Your task to perform on an android device: Clear the cart on bestbuy.com. Add "panasonic triple a" to the cart on bestbuy.com, then select checkout. Image 0: 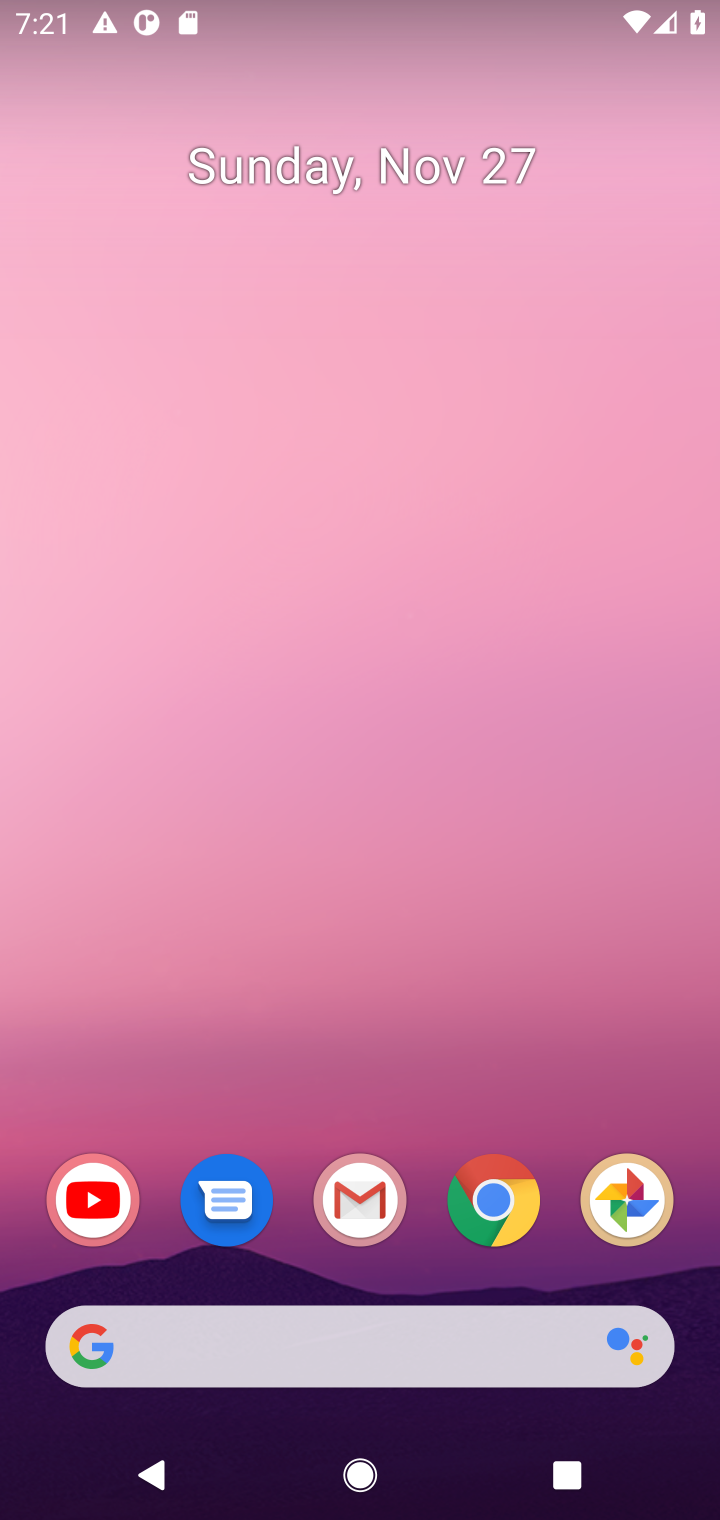
Step 0: click (499, 1206)
Your task to perform on an android device: Clear the cart on bestbuy.com. Add "panasonic triple a" to the cart on bestbuy.com, then select checkout. Image 1: 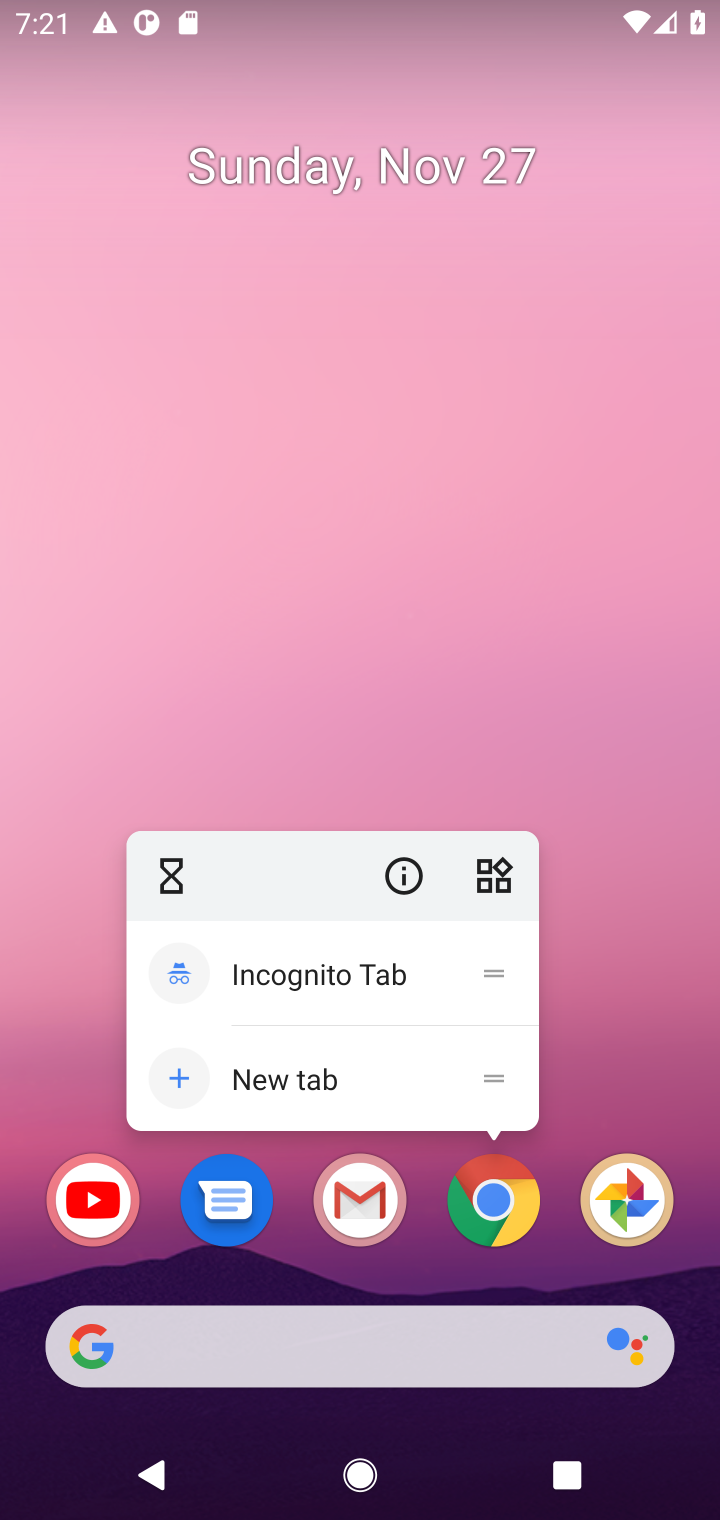
Step 1: click (499, 1206)
Your task to perform on an android device: Clear the cart on bestbuy.com. Add "panasonic triple a" to the cart on bestbuy.com, then select checkout. Image 2: 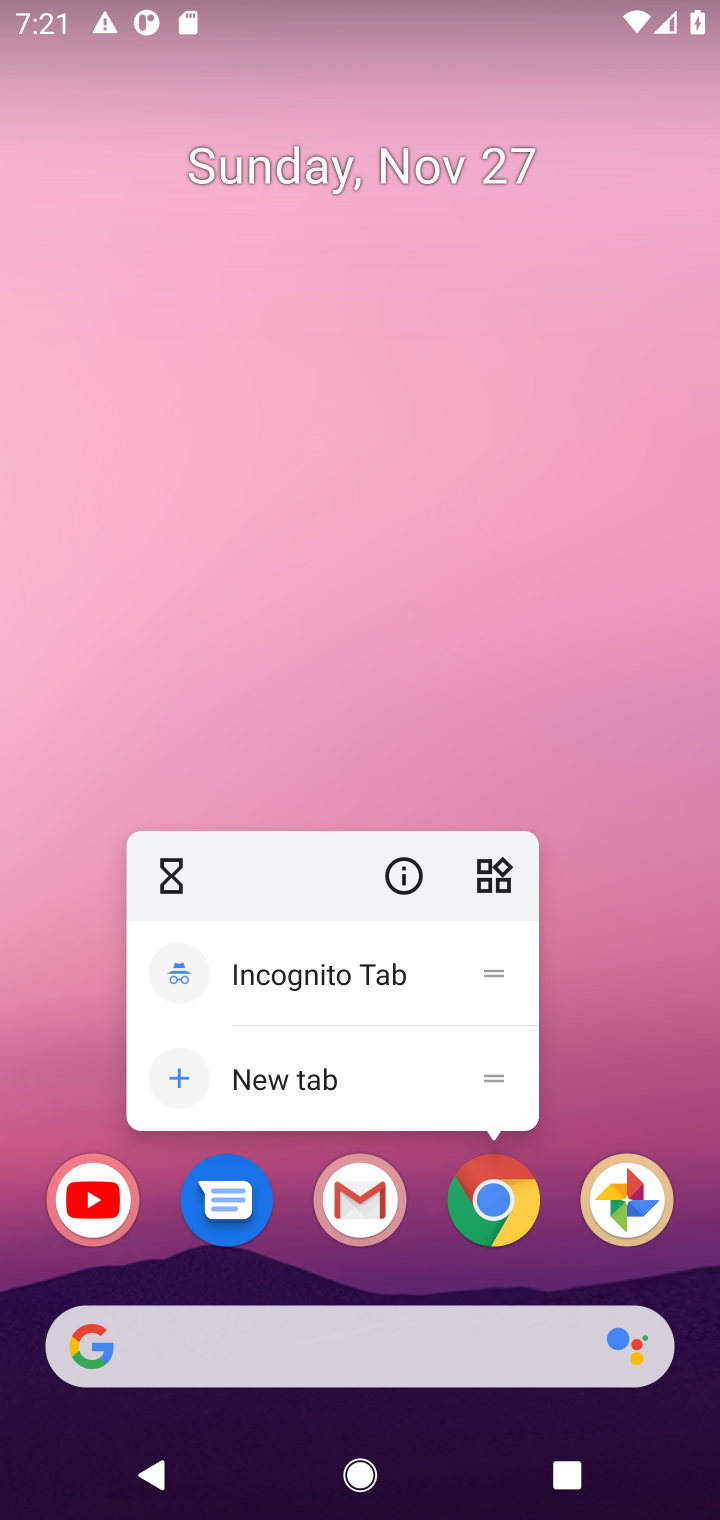
Step 2: click (499, 1206)
Your task to perform on an android device: Clear the cart on bestbuy.com. Add "panasonic triple a" to the cart on bestbuy.com, then select checkout. Image 3: 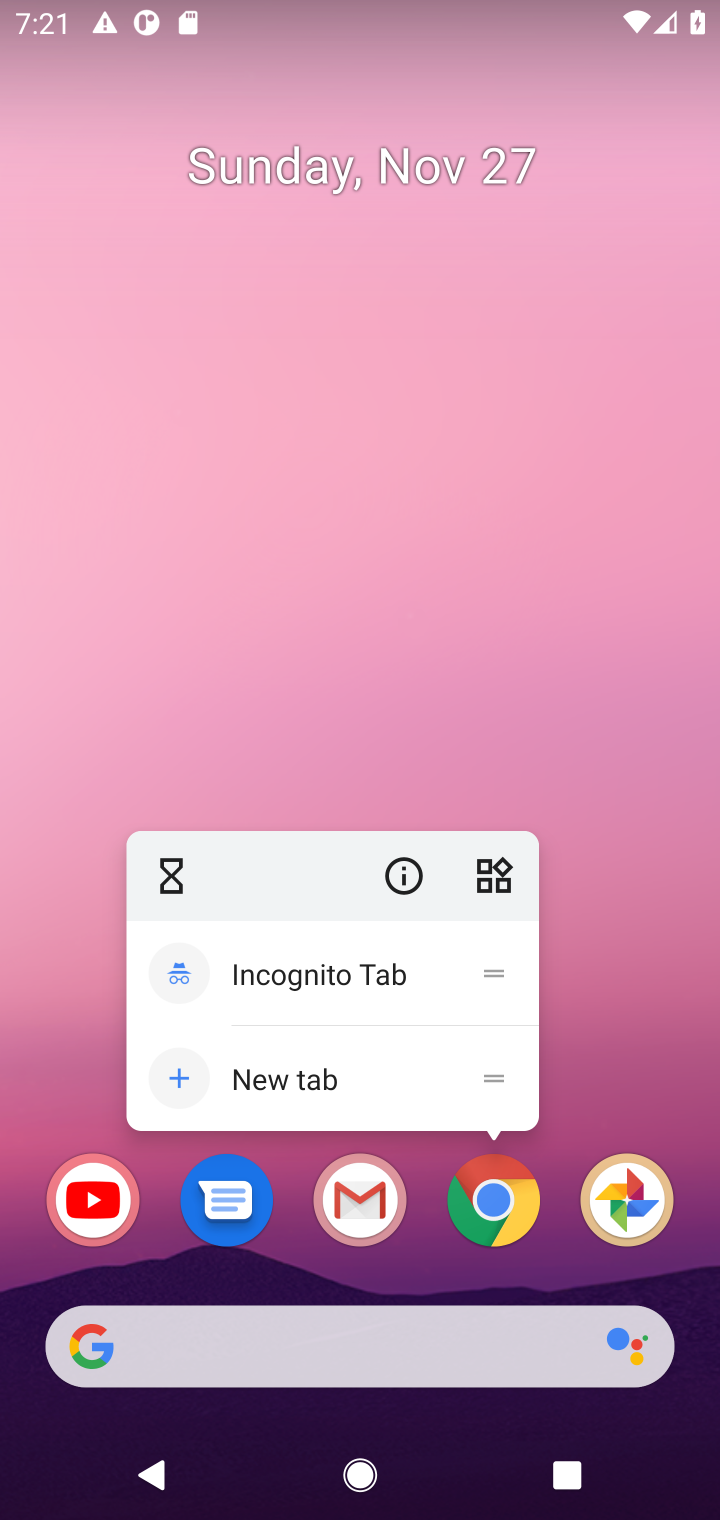
Step 3: click (568, 1060)
Your task to perform on an android device: Clear the cart on bestbuy.com. Add "panasonic triple a" to the cart on bestbuy.com, then select checkout. Image 4: 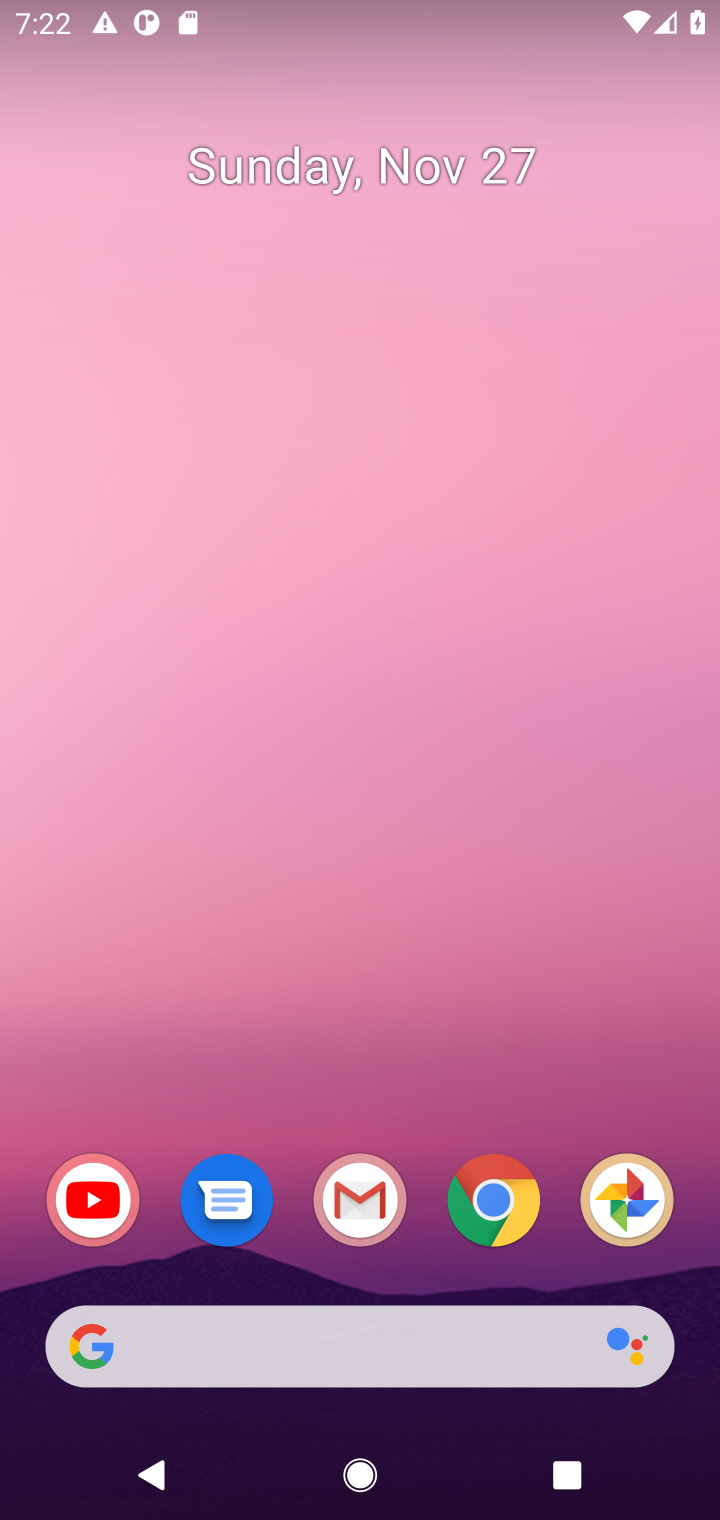
Step 4: click (495, 1209)
Your task to perform on an android device: Clear the cart on bestbuy.com. Add "panasonic triple a" to the cart on bestbuy.com, then select checkout. Image 5: 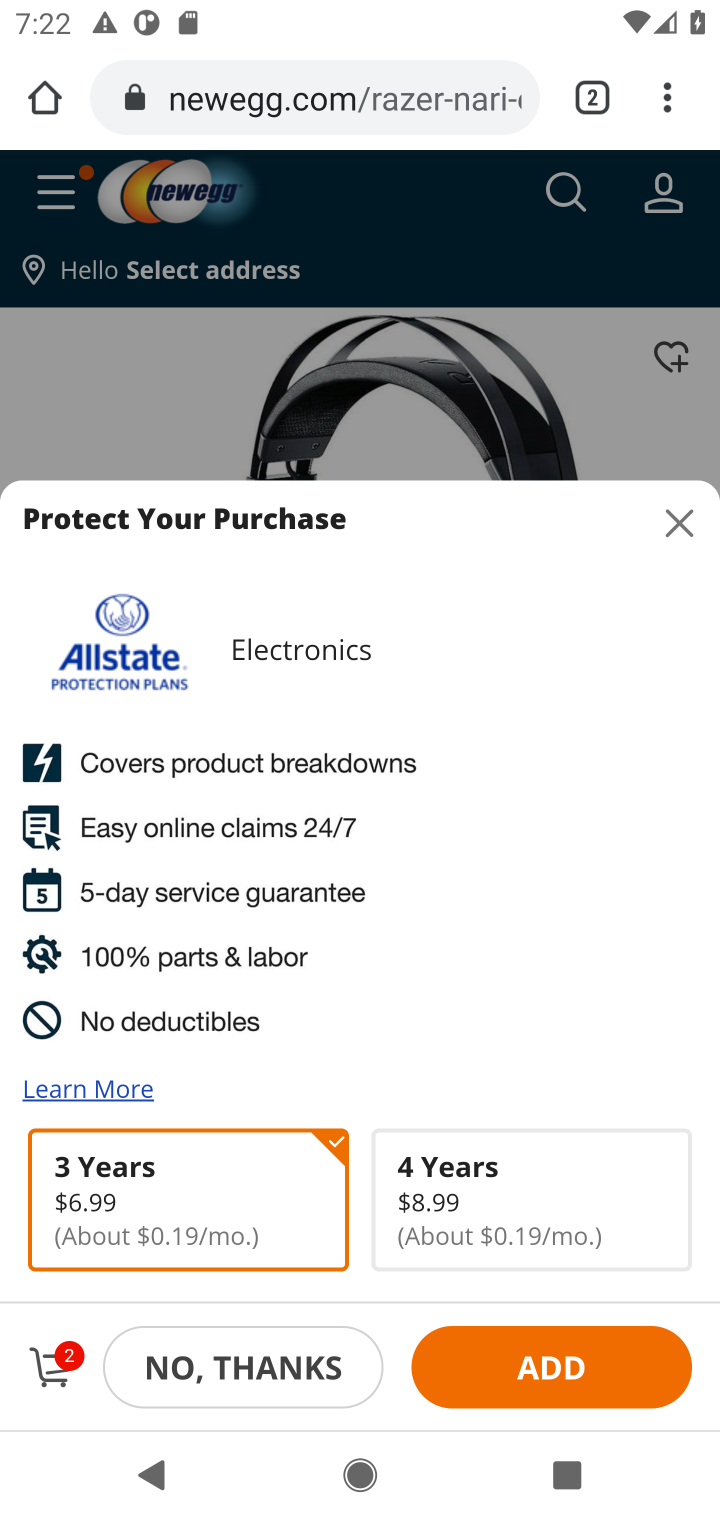
Step 5: click (326, 86)
Your task to perform on an android device: Clear the cart on bestbuy.com. Add "panasonic triple a" to the cart on bestbuy.com, then select checkout. Image 6: 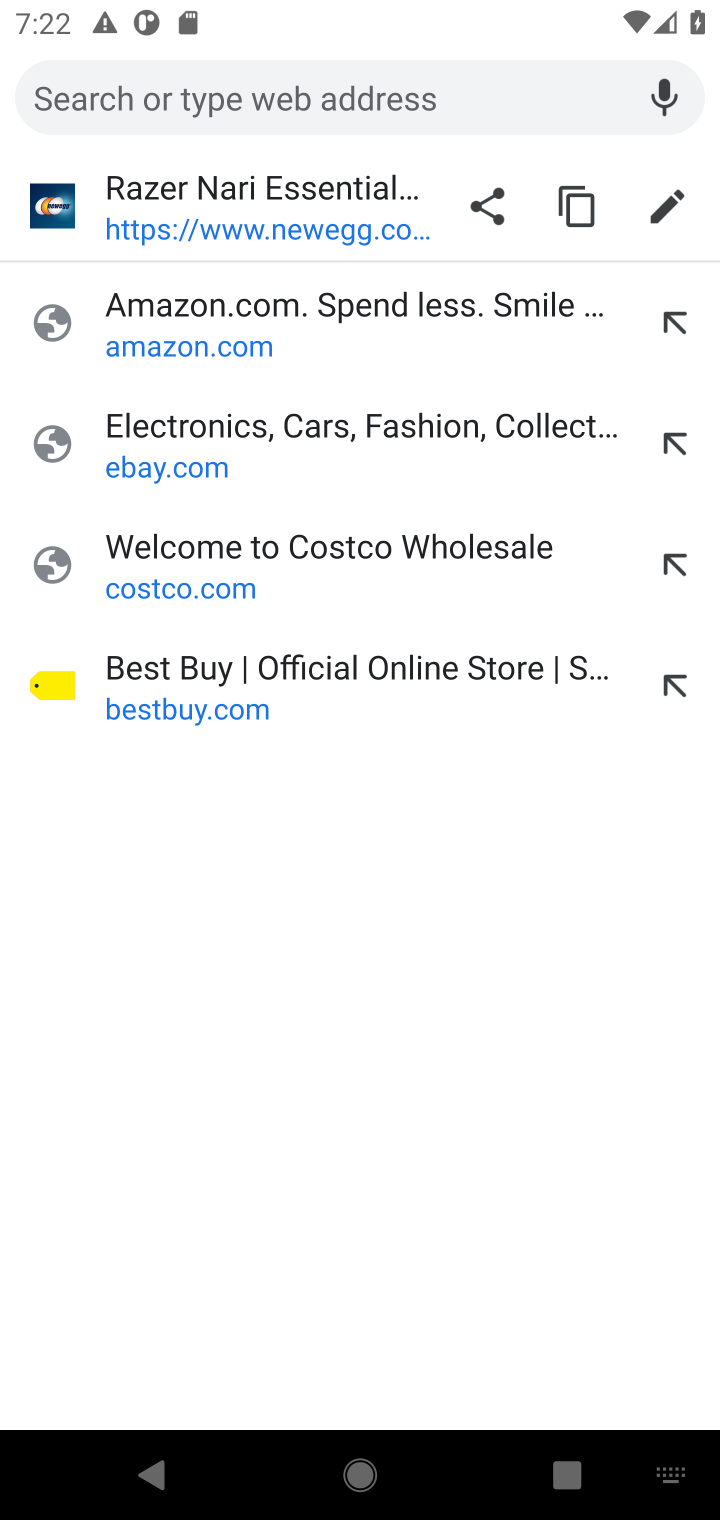
Step 6: click (157, 704)
Your task to perform on an android device: Clear the cart on bestbuy.com. Add "panasonic triple a" to the cart on bestbuy.com, then select checkout. Image 7: 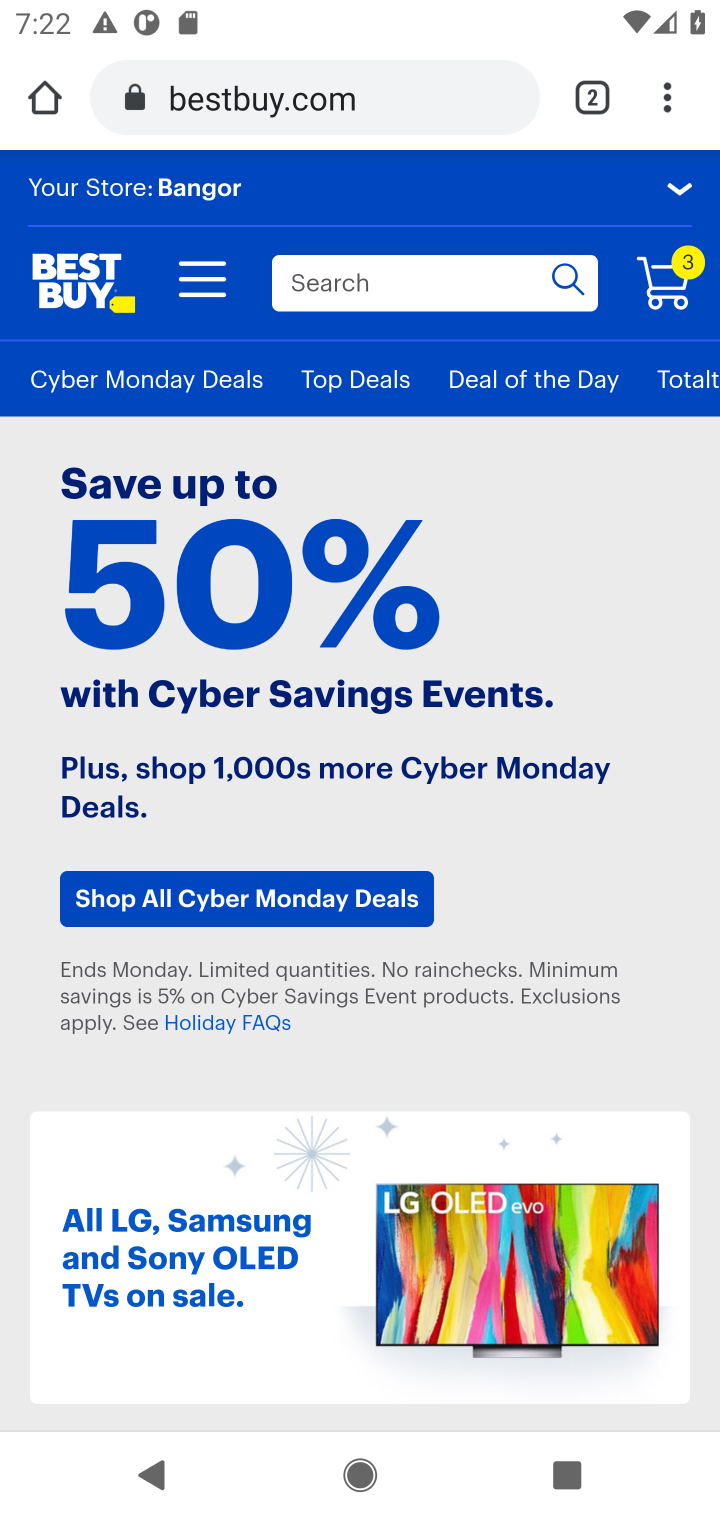
Step 7: click (336, 283)
Your task to perform on an android device: Clear the cart on bestbuy.com. Add "panasonic triple a" to the cart on bestbuy.com, then select checkout. Image 8: 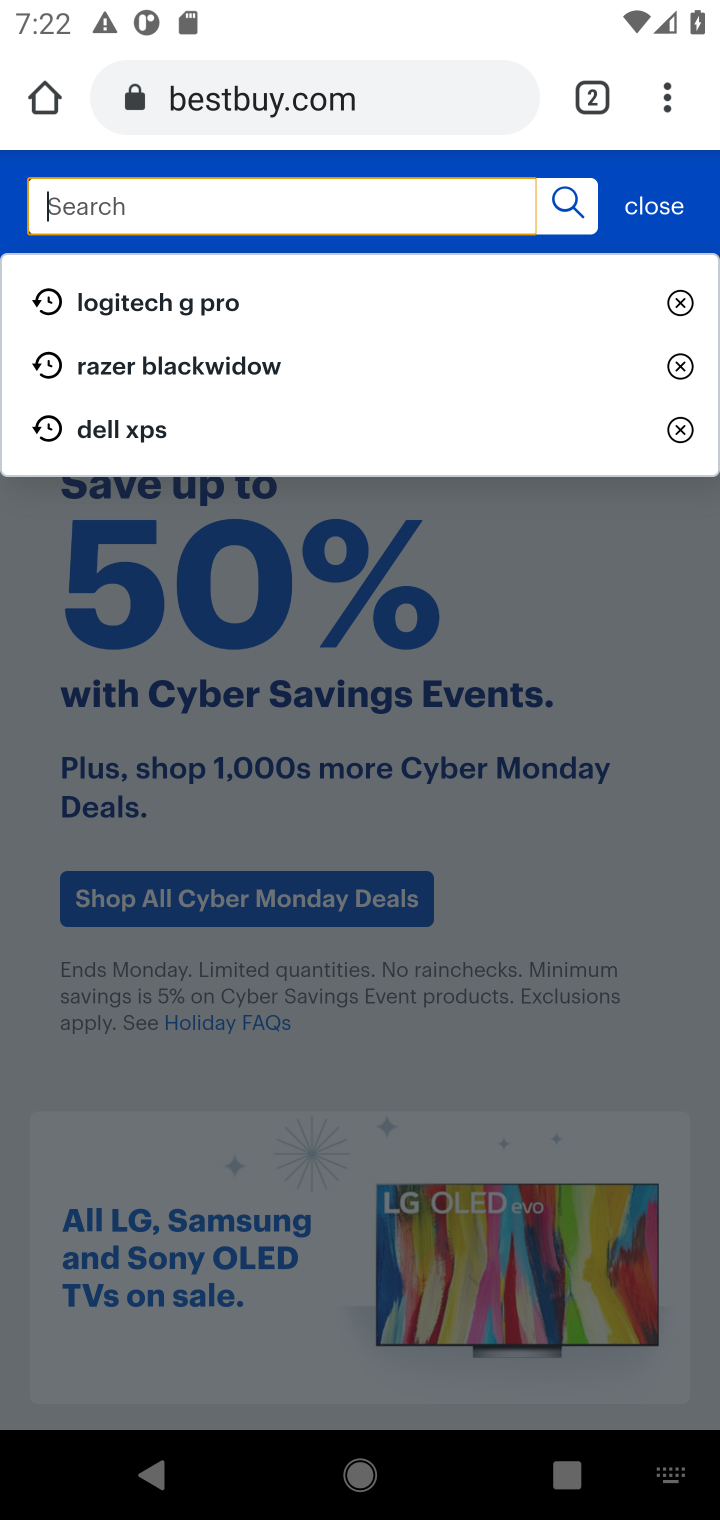
Step 8: type "panasonic triple a"
Your task to perform on an android device: Clear the cart on bestbuy.com. Add "panasonic triple a" to the cart on bestbuy.com, then select checkout. Image 9: 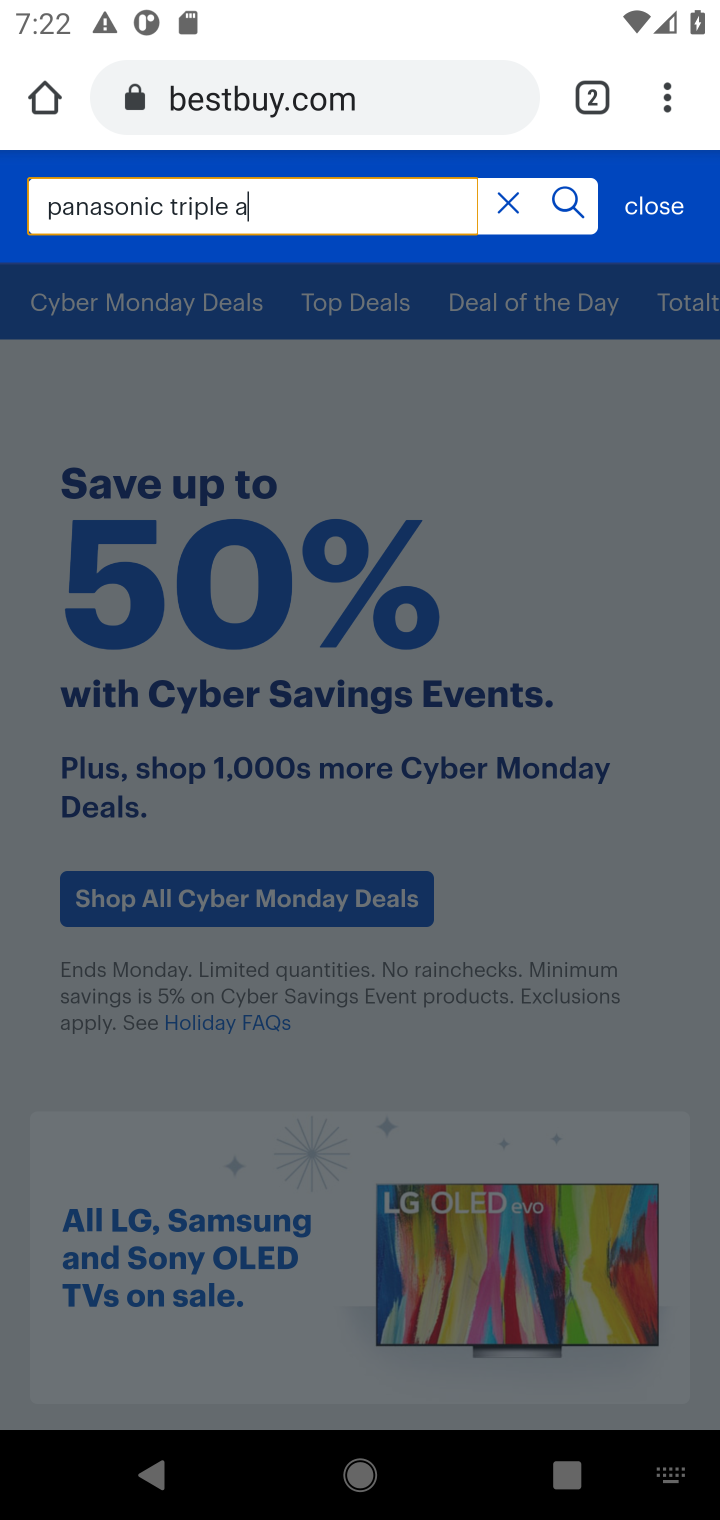
Step 9: click (572, 199)
Your task to perform on an android device: Clear the cart on bestbuy.com. Add "panasonic triple a" to the cart on bestbuy.com, then select checkout. Image 10: 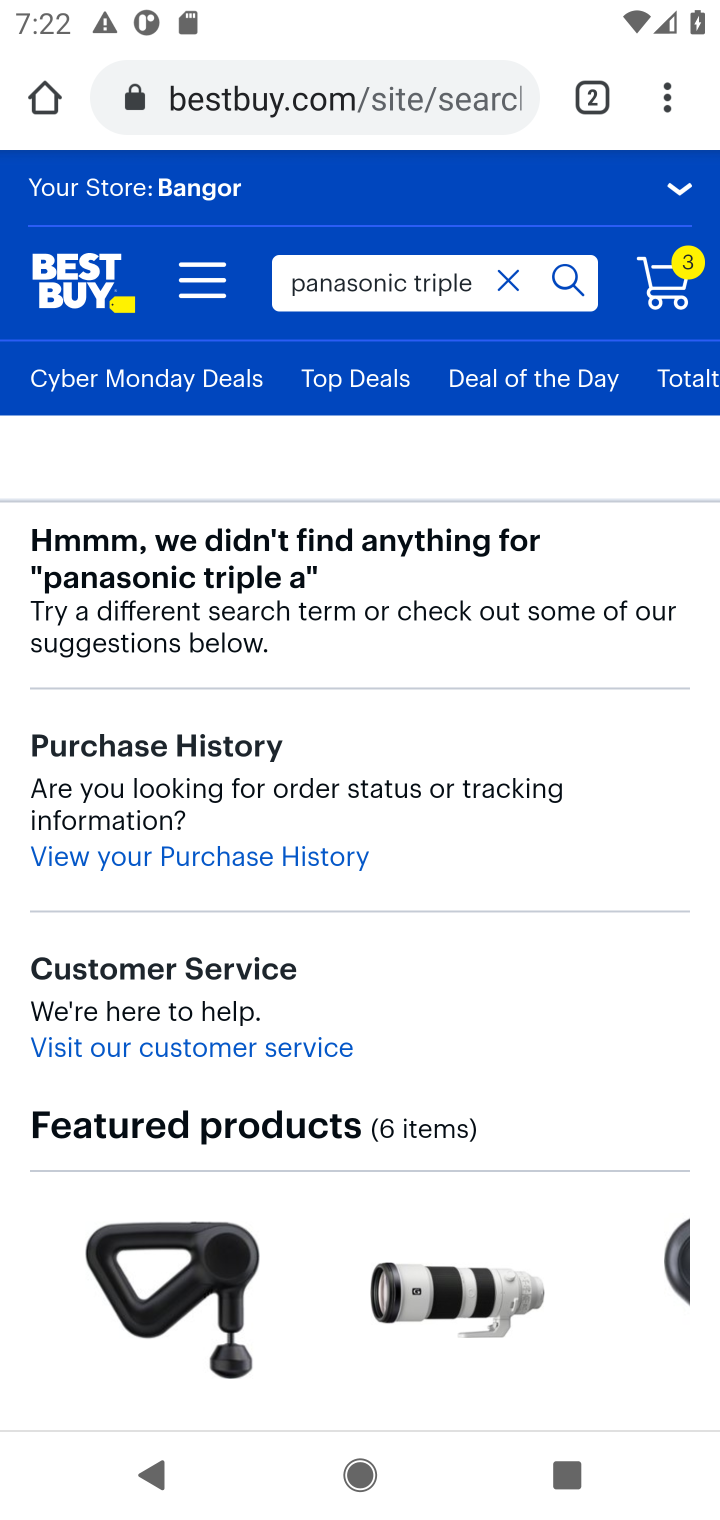
Step 10: task complete